Your task to perform on an android device: turn off location history Image 0: 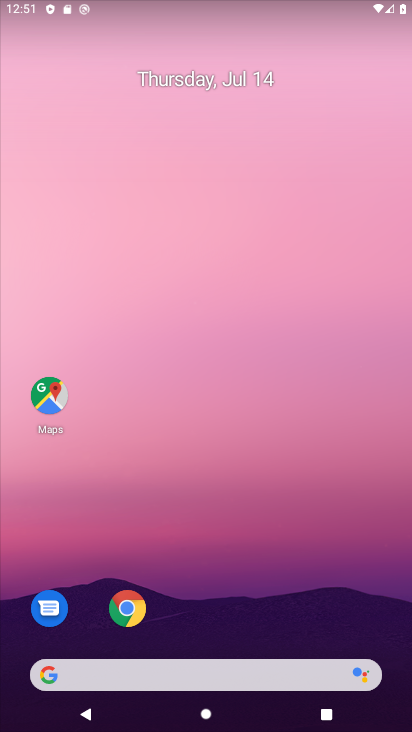
Step 0: click (49, 397)
Your task to perform on an android device: turn off location history Image 1: 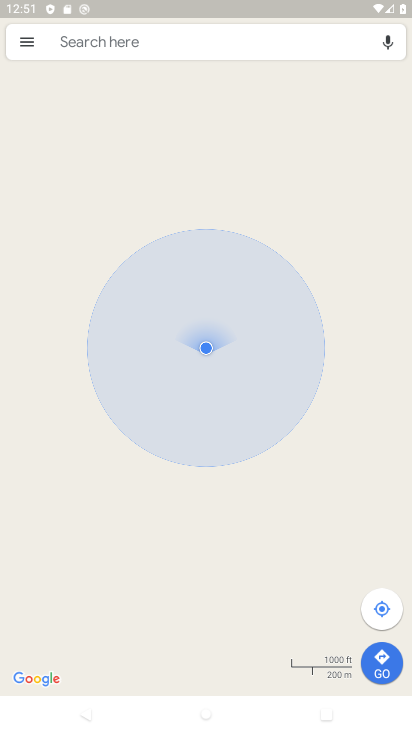
Step 1: click (22, 40)
Your task to perform on an android device: turn off location history Image 2: 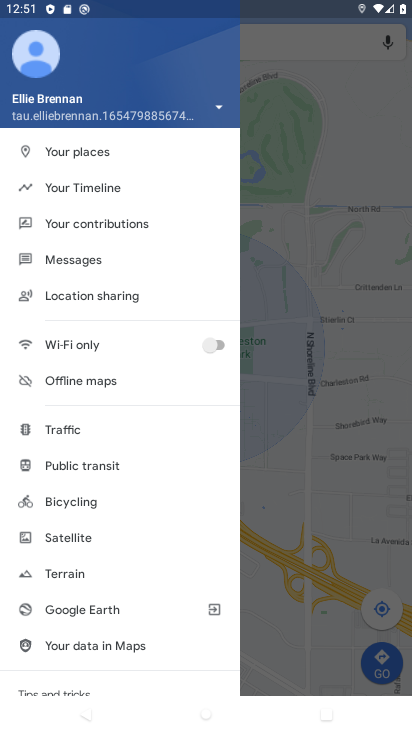
Step 2: drag from (156, 625) to (115, 237)
Your task to perform on an android device: turn off location history Image 3: 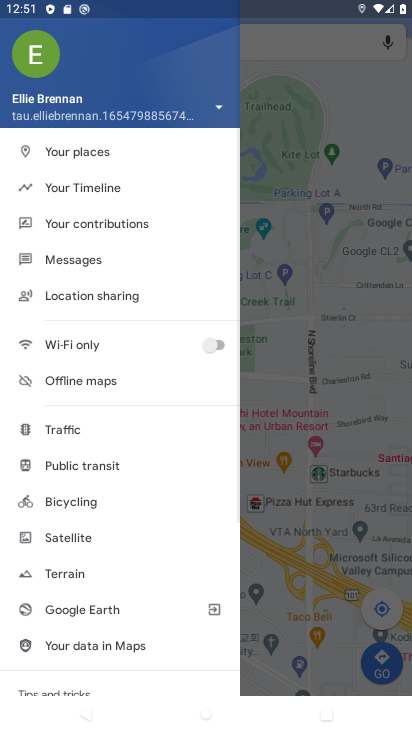
Step 3: drag from (166, 616) to (141, 264)
Your task to perform on an android device: turn off location history Image 4: 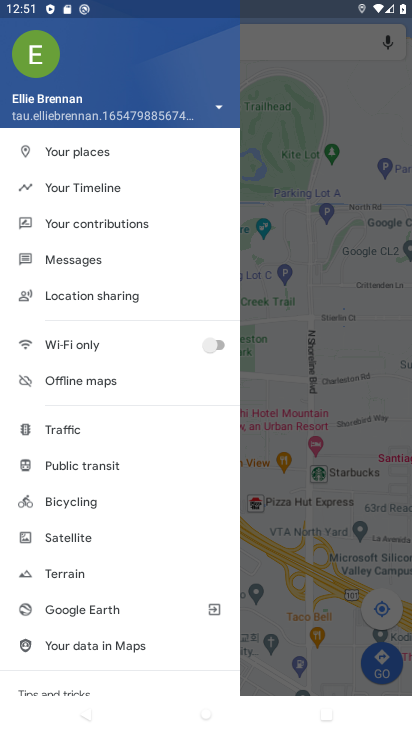
Step 4: drag from (173, 638) to (169, 202)
Your task to perform on an android device: turn off location history Image 5: 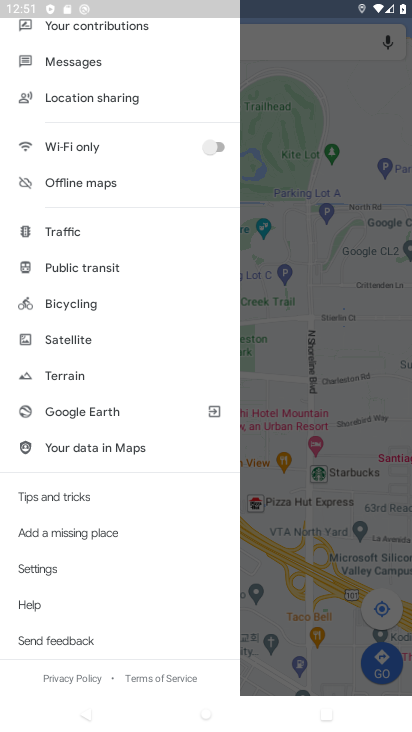
Step 5: click (32, 562)
Your task to perform on an android device: turn off location history Image 6: 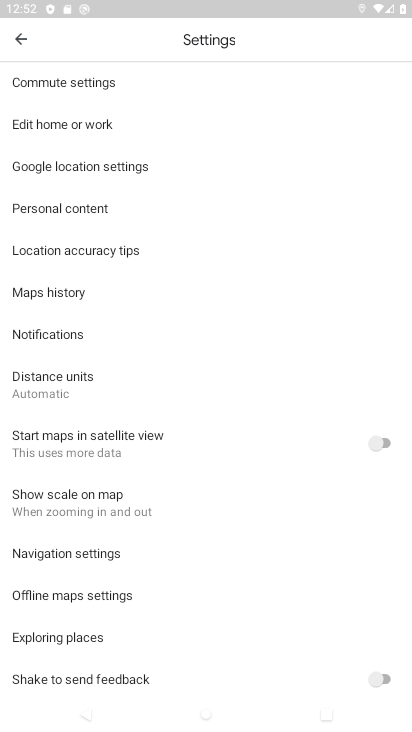
Step 6: click (41, 202)
Your task to perform on an android device: turn off location history Image 7: 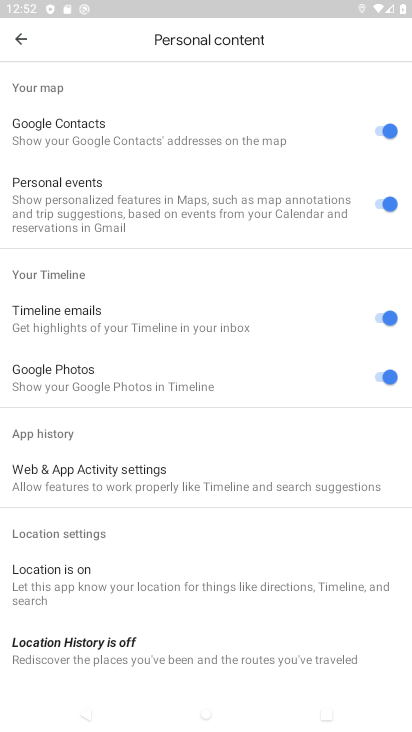
Step 7: task complete